Your task to perform on an android device: What's the weather? Image 0: 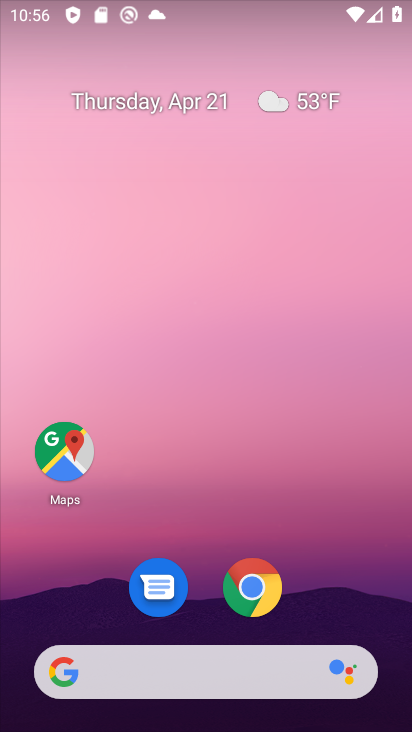
Step 0: click (278, 101)
Your task to perform on an android device: What's the weather? Image 1: 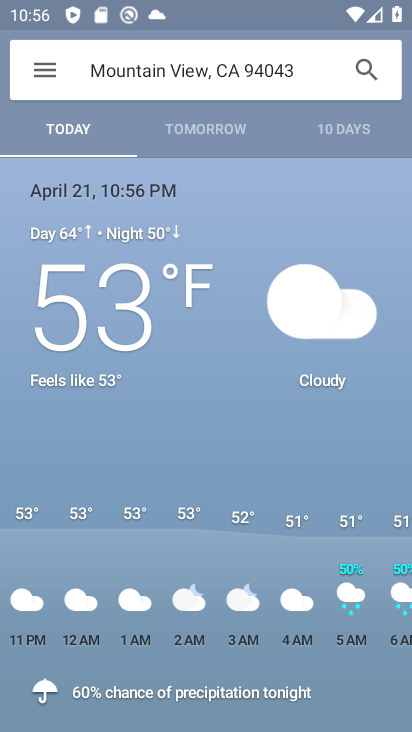
Step 1: task complete